Your task to perform on an android device: change the clock display to analog Image 0: 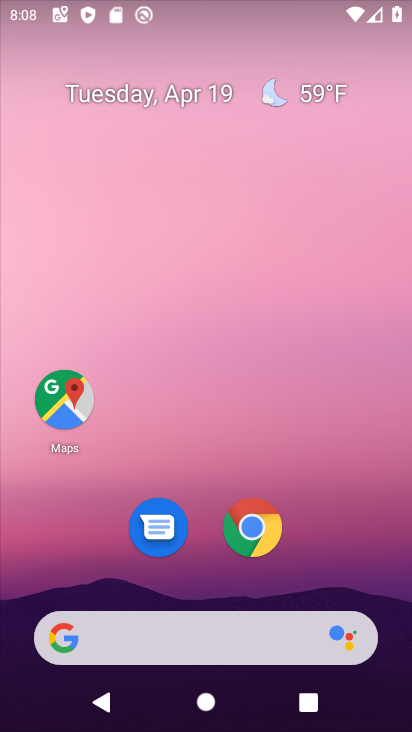
Step 0: drag from (226, 416) to (233, 219)
Your task to perform on an android device: change the clock display to analog Image 1: 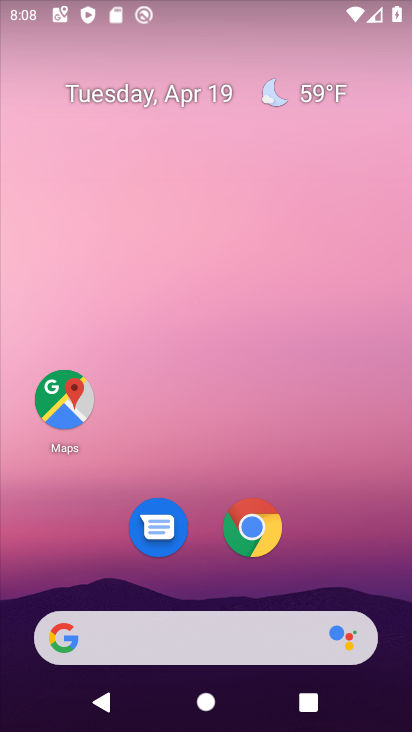
Step 1: drag from (216, 486) to (216, 165)
Your task to perform on an android device: change the clock display to analog Image 2: 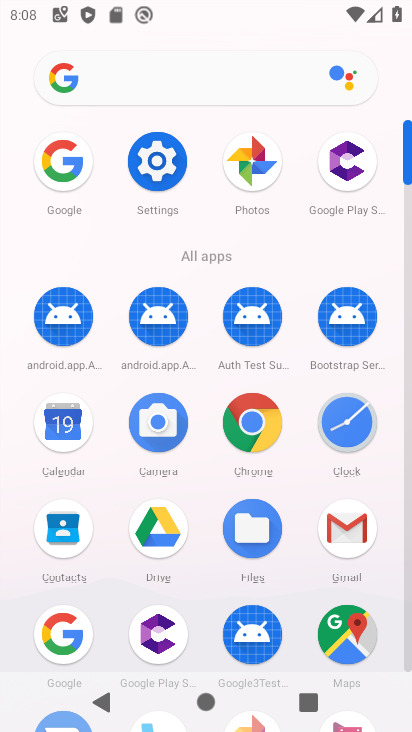
Step 2: click (338, 409)
Your task to perform on an android device: change the clock display to analog Image 3: 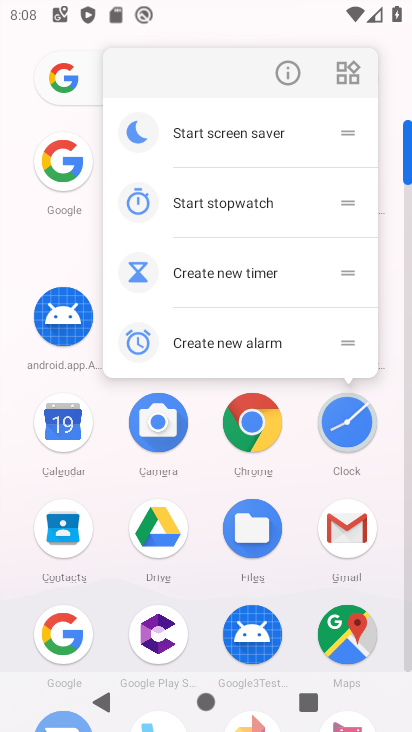
Step 3: click (342, 427)
Your task to perform on an android device: change the clock display to analog Image 4: 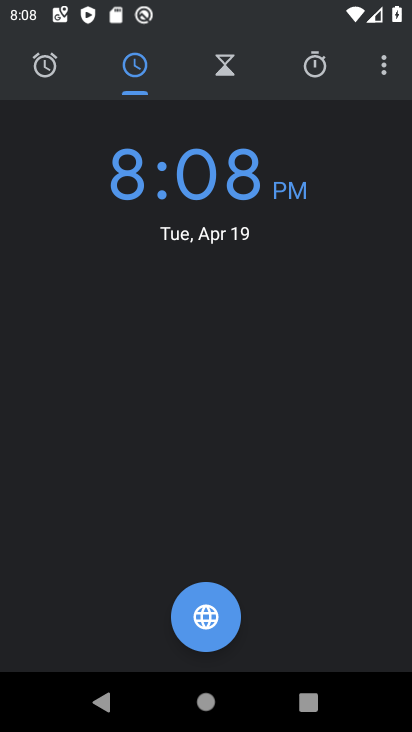
Step 4: click (383, 69)
Your task to perform on an android device: change the clock display to analog Image 5: 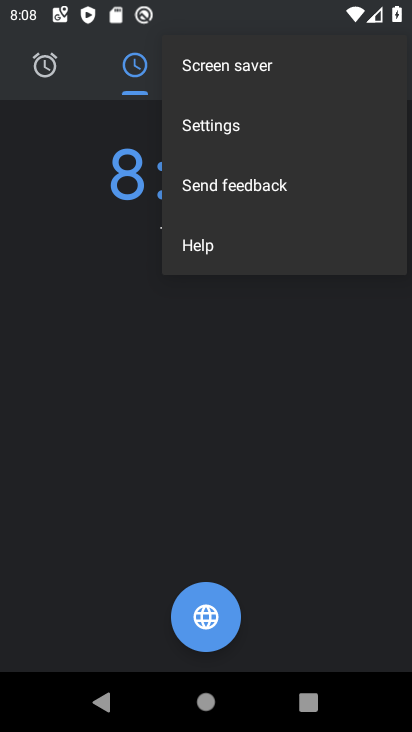
Step 5: click (249, 136)
Your task to perform on an android device: change the clock display to analog Image 6: 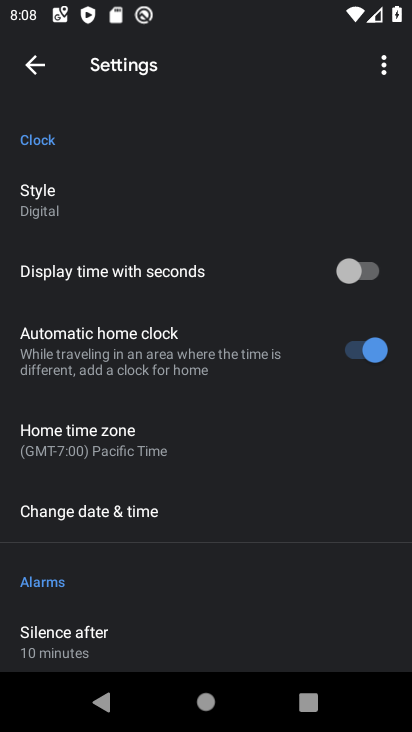
Step 6: click (76, 211)
Your task to perform on an android device: change the clock display to analog Image 7: 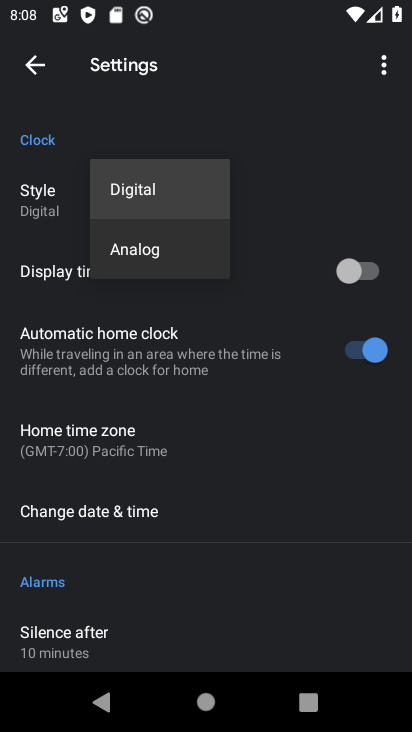
Step 7: click (125, 244)
Your task to perform on an android device: change the clock display to analog Image 8: 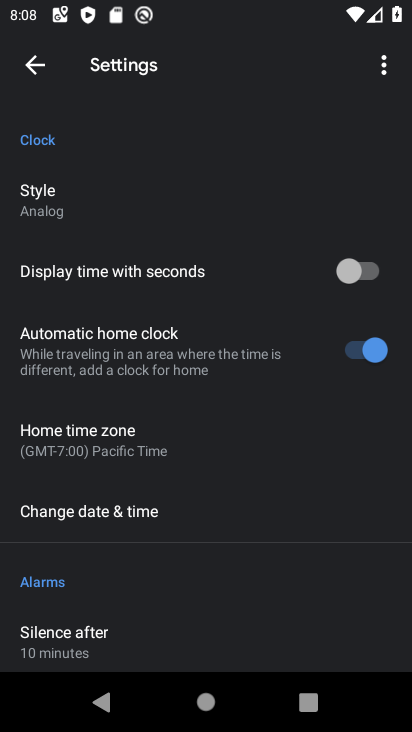
Step 8: task complete